Your task to perform on an android device: check out phone information Image 0: 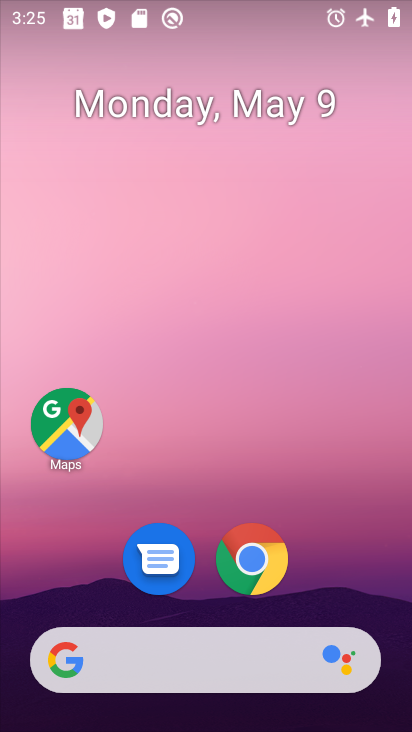
Step 0: drag from (202, 730) to (204, 138)
Your task to perform on an android device: check out phone information Image 1: 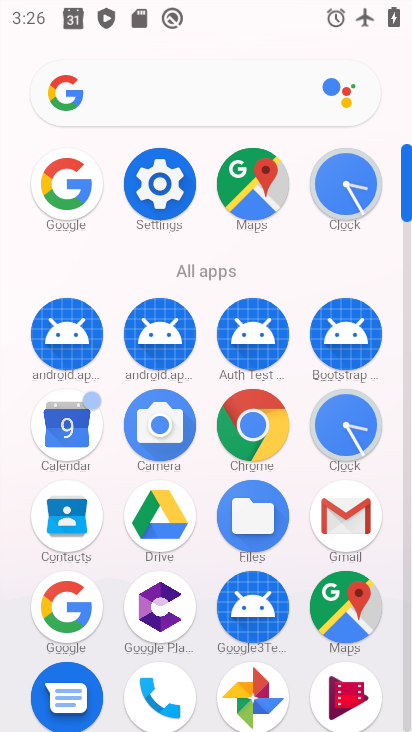
Step 1: click (163, 187)
Your task to perform on an android device: check out phone information Image 2: 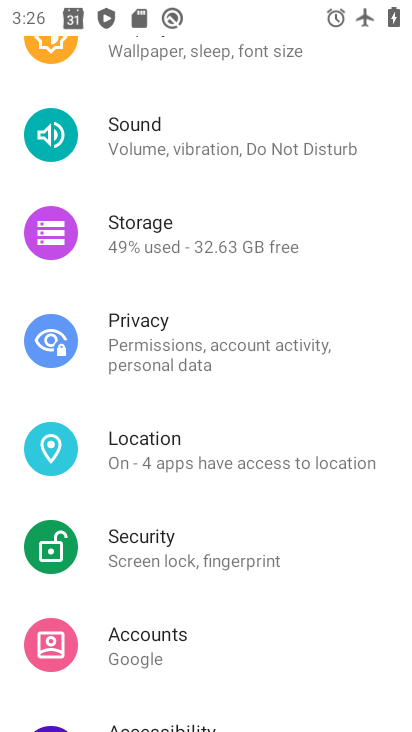
Step 2: drag from (220, 711) to (220, 289)
Your task to perform on an android device: check out phone information Image 3: 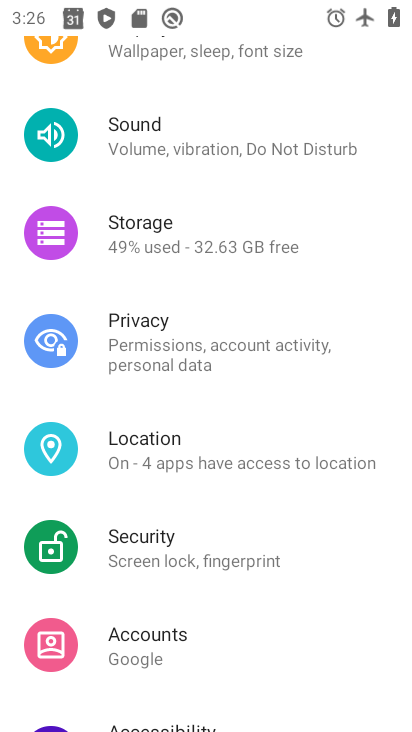
Step 3: drag from (208, 688) to (208, 339)
Your task to perform on an android device: check out phone information Image 4: 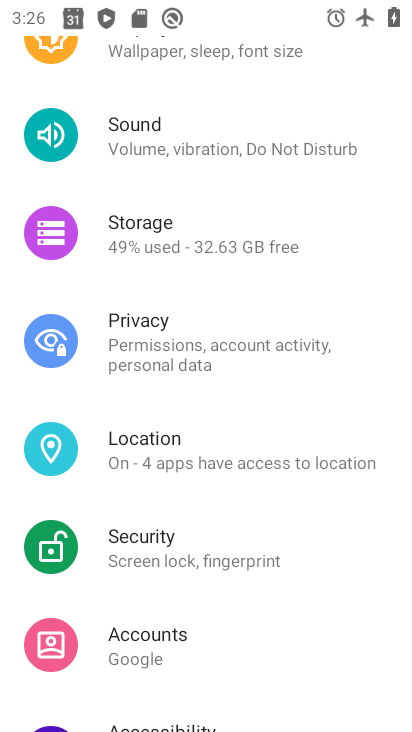
Step 4: drag from (231, 682) to (257, 248)
Your task to perform on an android device: check out phone information Image 5: 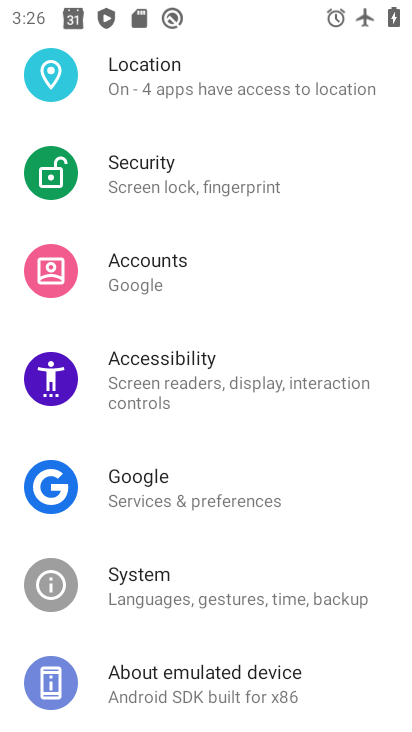
Step 5: click (179, 682)
Your task to perform on an android device: check out phone information Image 6: 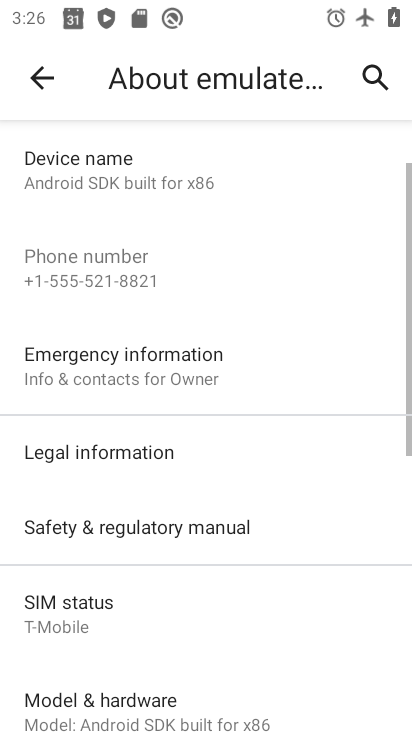
Step 6: task complete